Your task to perform on an android device: Open the calendar and show me this week's events? Image 0: 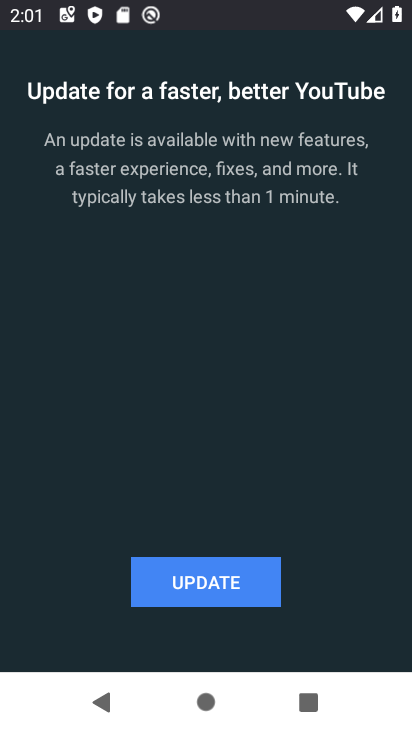
Step 0: press home button
Your task to perform on an android device: Open the calendar and show me this week's events? Image 1: 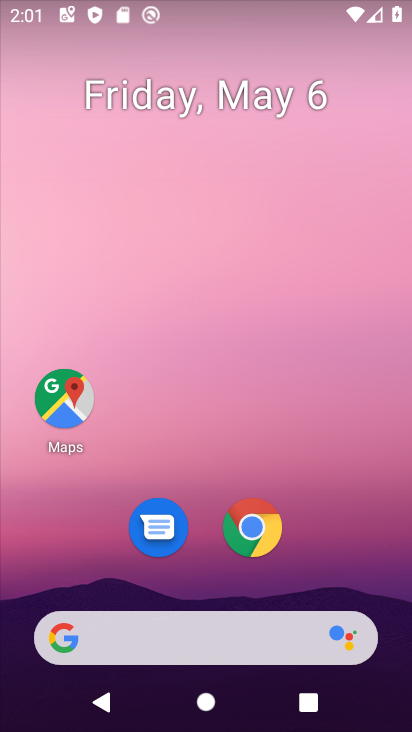
Step 1: drag from (324, 556) to (385, 138)
Your task to perform on an android device: Open the calendar and show me this week's events? Image 2: 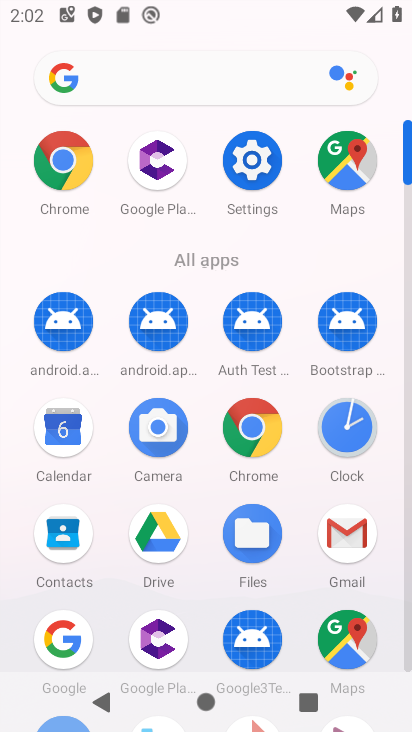
Step 2: click (65, 430)
Your task to perform on an android device: Open the calendar and show me this week's events? Image 3: 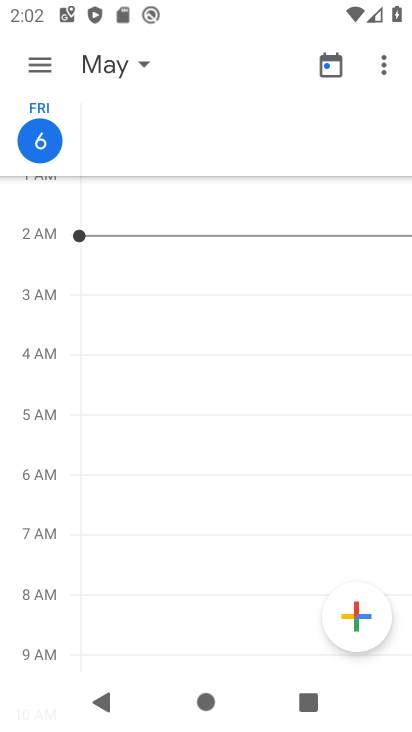
Step 3: click (49, 56)
Your task to perform on an android device: Open the calendar and show me this week's events? Image 4: 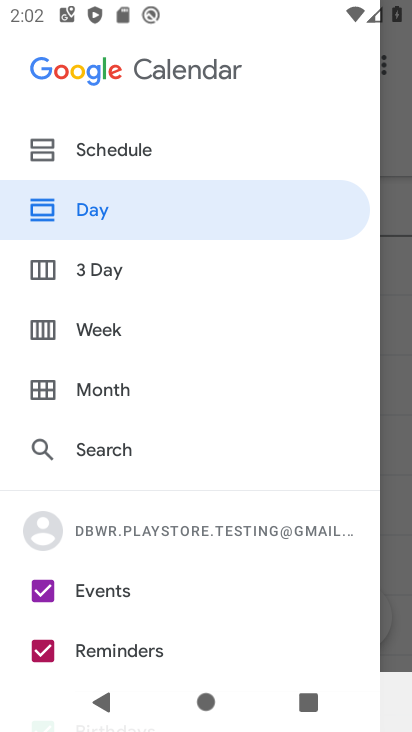
Step 4: click (117, 152)
Your task to perform on an android device: Open the calendar and show me this week's events? Image 5: 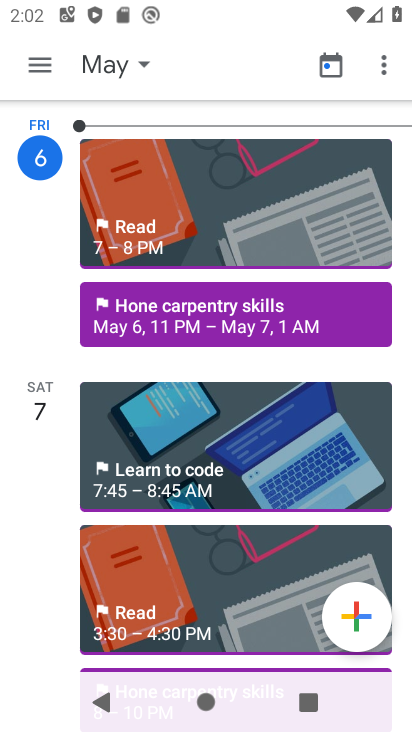
Step 5: task complete